Your task to perform on an android device: open sync settings in chrome Image 0: 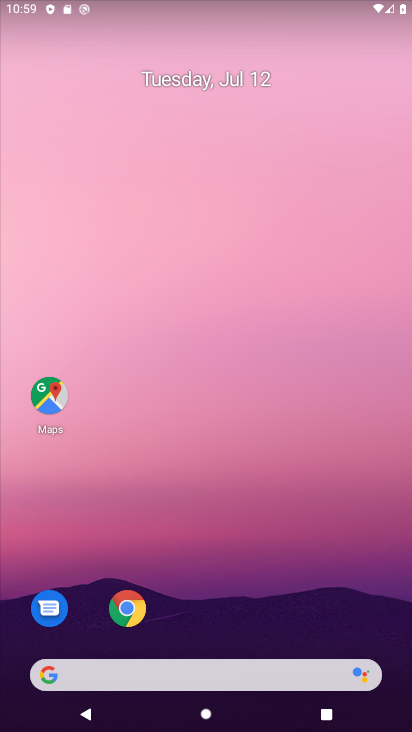
Step 0: click (125, 611)
Your task to perform on an android device: open sync settings in chrome Image 1: 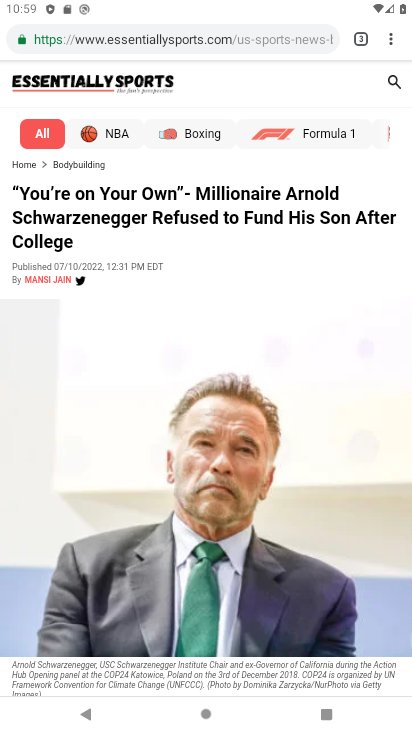
Step 1: click (388, 43)
Your task to perform on an android device: open sync settings in chrome Image 2: 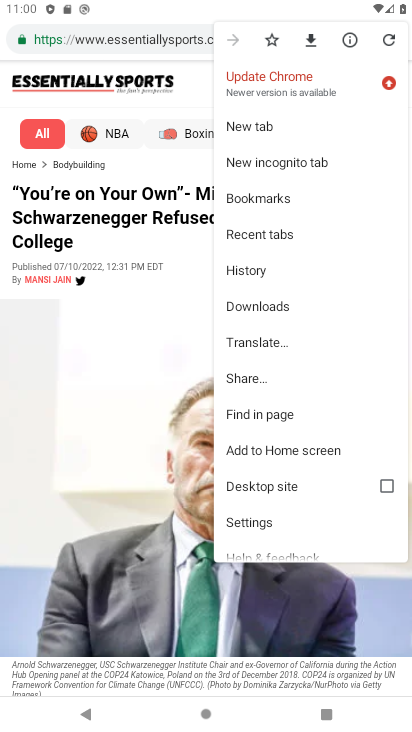
Step 2: click (243, 525)
Your task to perform on an android device: open sync settings in chrome Image 3: 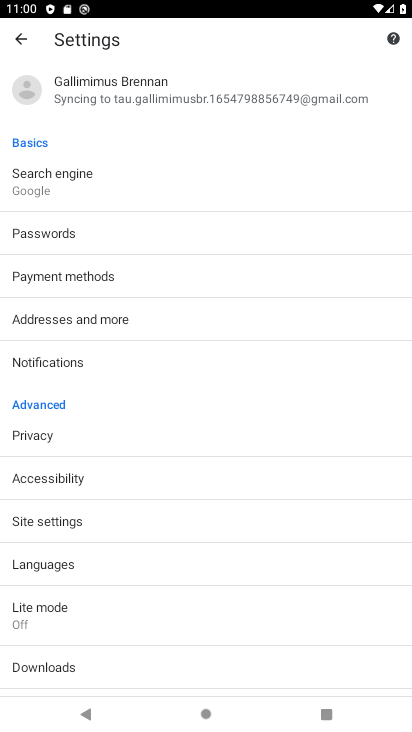
Step 3: click (46, 525)
Your task to perform on an android device: open sync settings in chrome Image 4: 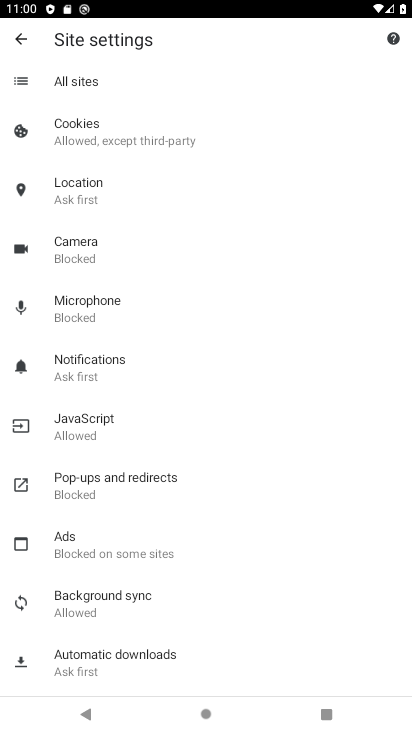
Step 4: click (125, 593)
Your task to perform on an android device: open sync settings in chrome Image 5: 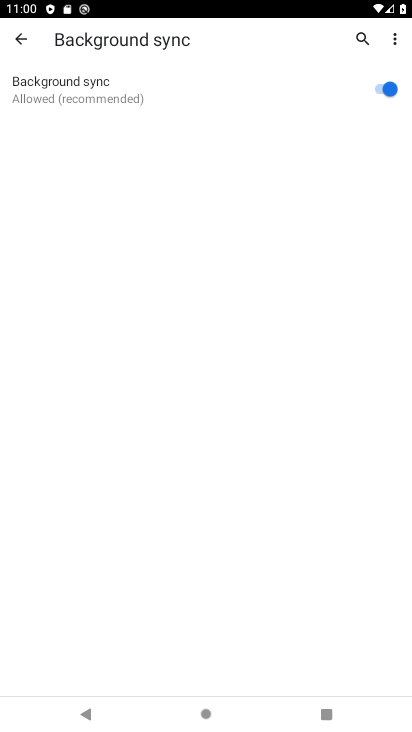
Step 5: task complete